Your task to perform on an android device: see sites visited before in the chrome app Image 0: 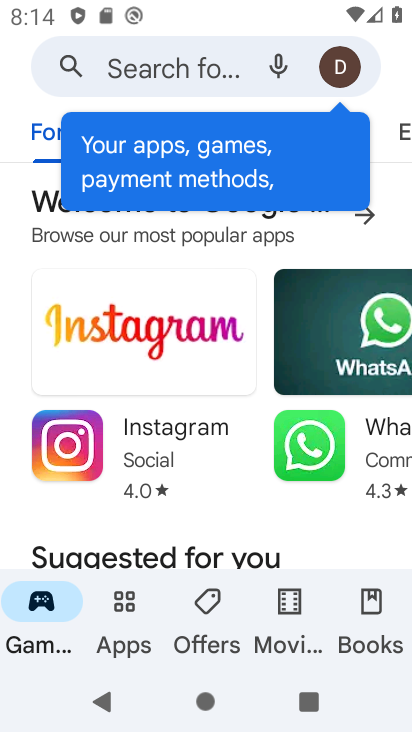
Step 0: press home button
Your task to perform on an android device: see sites visited before in the chrome app Image 1: 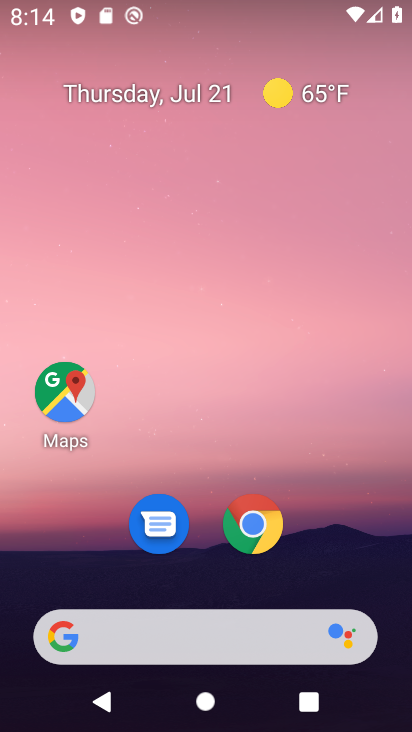
Step 1: click (247, 531)
Your task to perform on an android device: see sites visited before in the chrome app Image 2: 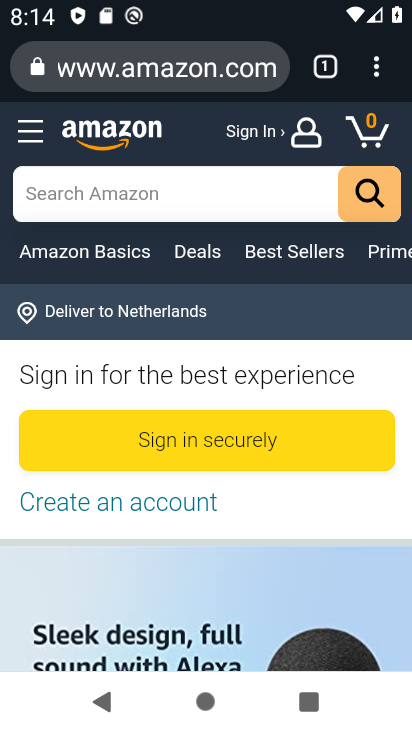
Step 2: task complete